Your task to perform on an android device: change notification settings in the gmail app Image 0: 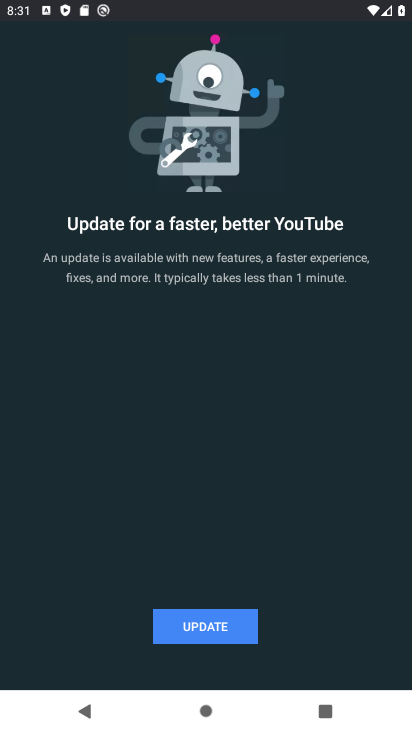
Step 0: press back button
Your task to perform on an android device: change notification settings in the gmail app Image 1: 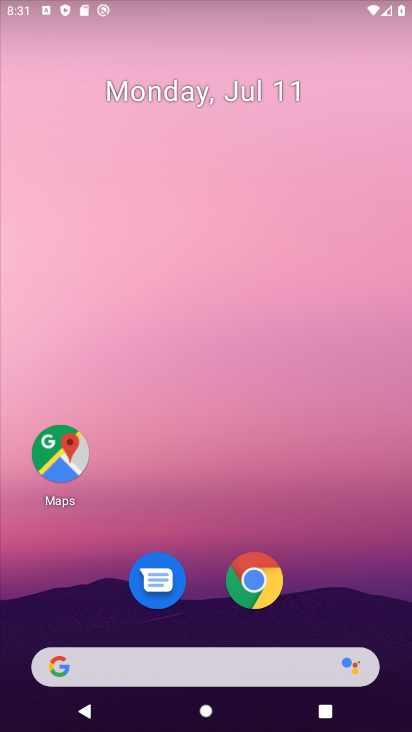
Step 1: press home button
Your task to perform on an android device: change notification settings in the gmail app Image 2: 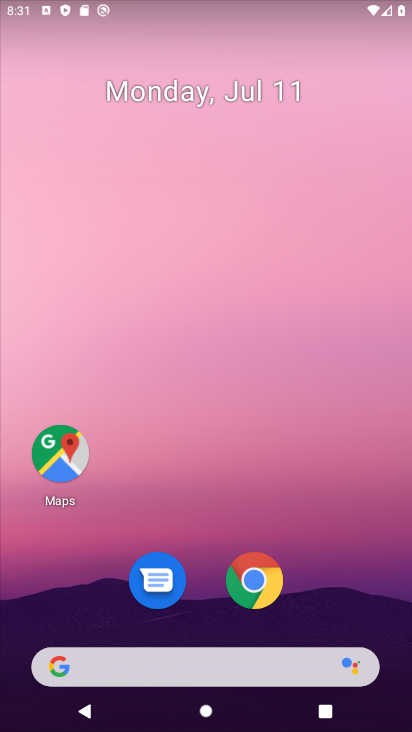
Step 2: drag from (389, 631) to (271, 44)
Your task to perform on an android device: change notification settings in the gmail app Image 3: 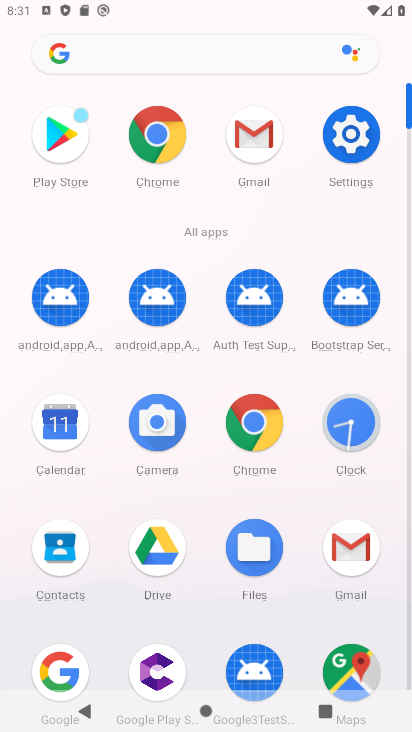
Step 3: click (244, 151)
Your task to perform on an android device: change notification settings in the gmail app Image 4: 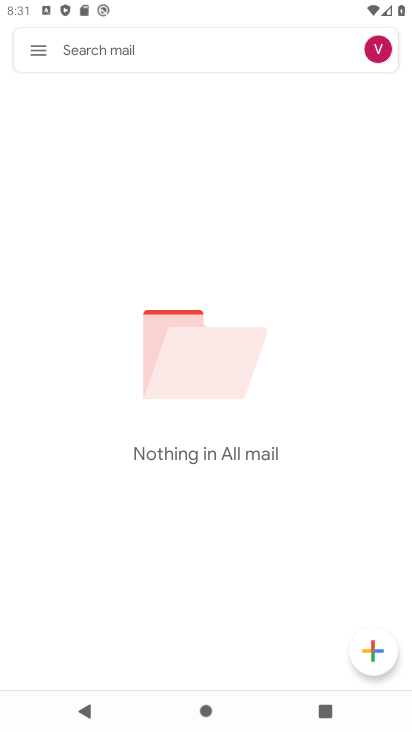
Step 4: click (47, 54)
Your task to perform on an android device: change notification settings in the gmail app Image 5: 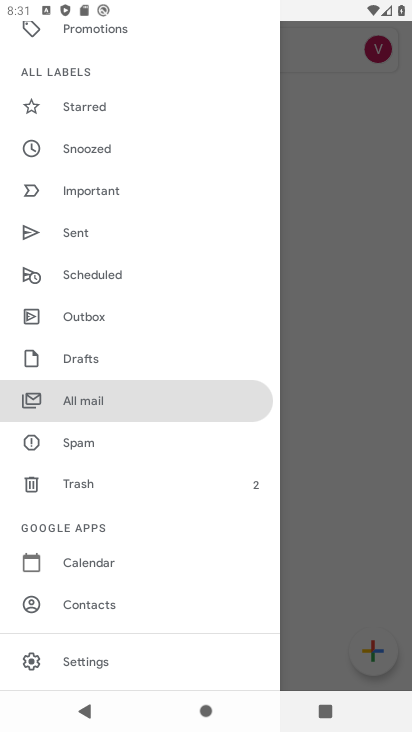
Step 5: click (94, 667)
Your task to perform on an android device: change notification settings in the gmail app Image 6: 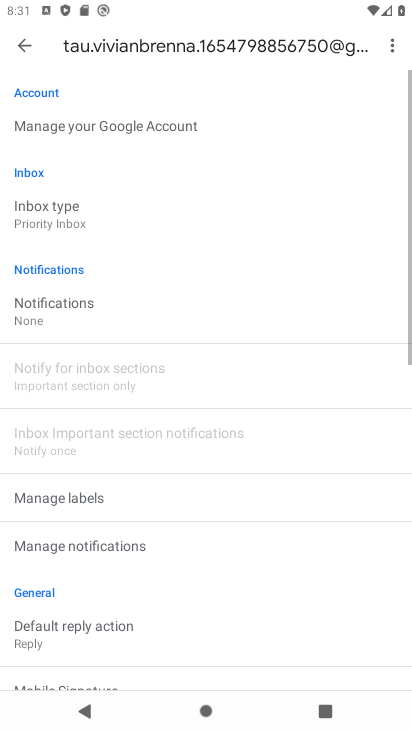
Step 6: click (109, 319)
Your task to perform on an android device: change notification settings in the gmail app Image 7: 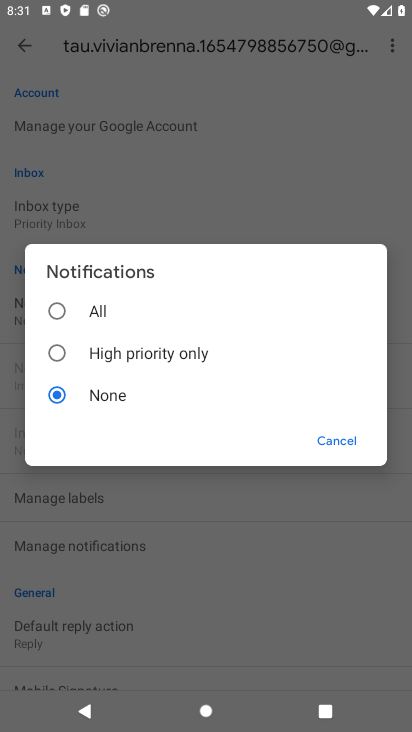
Step 7: click (77, 311)
Your task to perform on an android device: change notification settings in the gmail app Image 8: 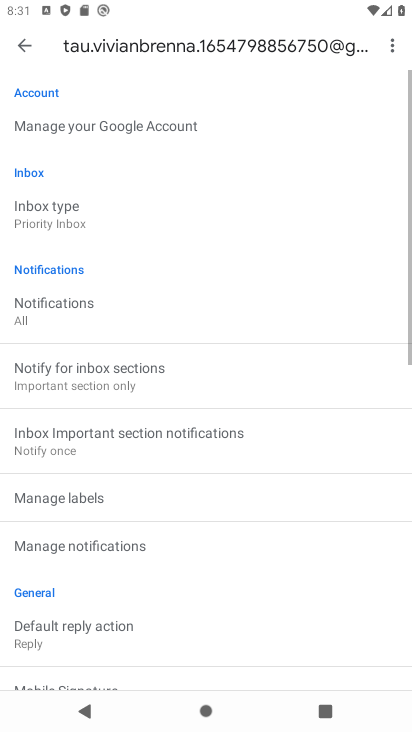
Step 8: task complete